Your task to perform on an android device: View the shopping cart on walmart. Add "logitech g903" to the cart on walmart Image 0: 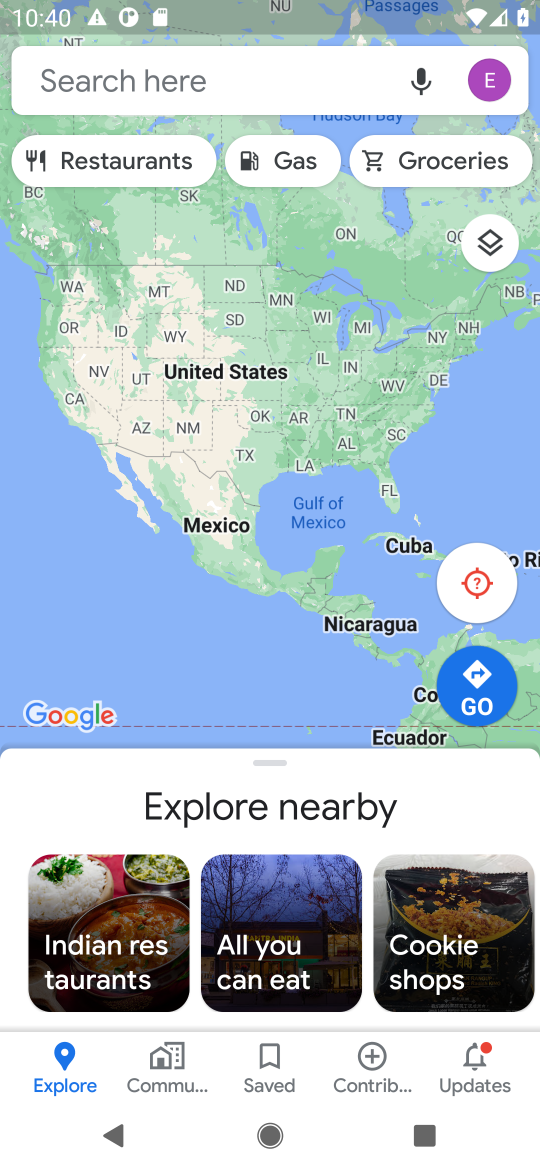
Step 0: press home button
Your task to perform on an android device: View the shopping cart on walmart. Add "logitech g903" to the cart on walmart Image 1: 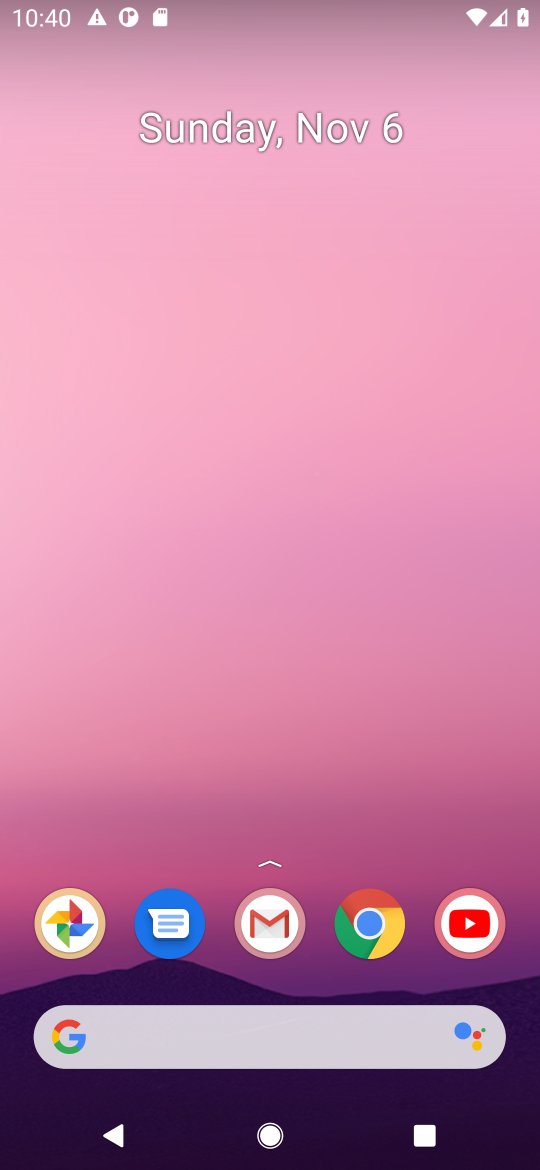
Step 1: click (371, 932)
Your task to perform on an android device: View the shopping cart on walmart. Add "logitech g903" to the cart on walmart Image 2: 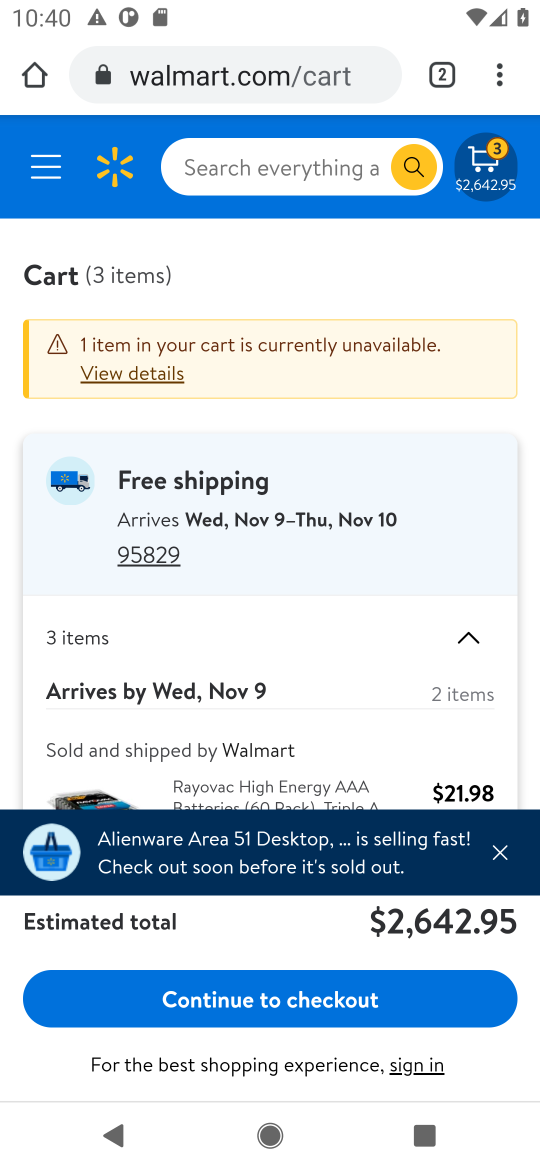
Step 2: click (503, 180)
Your task to perform on an android device: View the shopping cart on walmart. Add "logitech g903" to the cart on walmart Image 3: 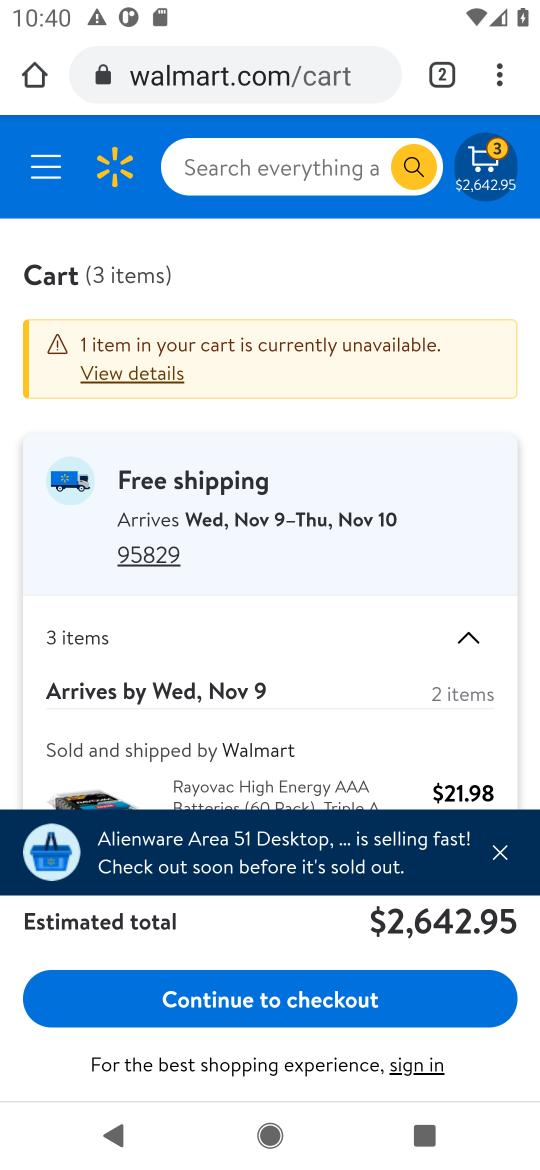
Step 3: click (322, 171)
Your task to perform on an android device: View the shopping cart on walmart. Add "logitech g903" to the cart on walmart Image 4: 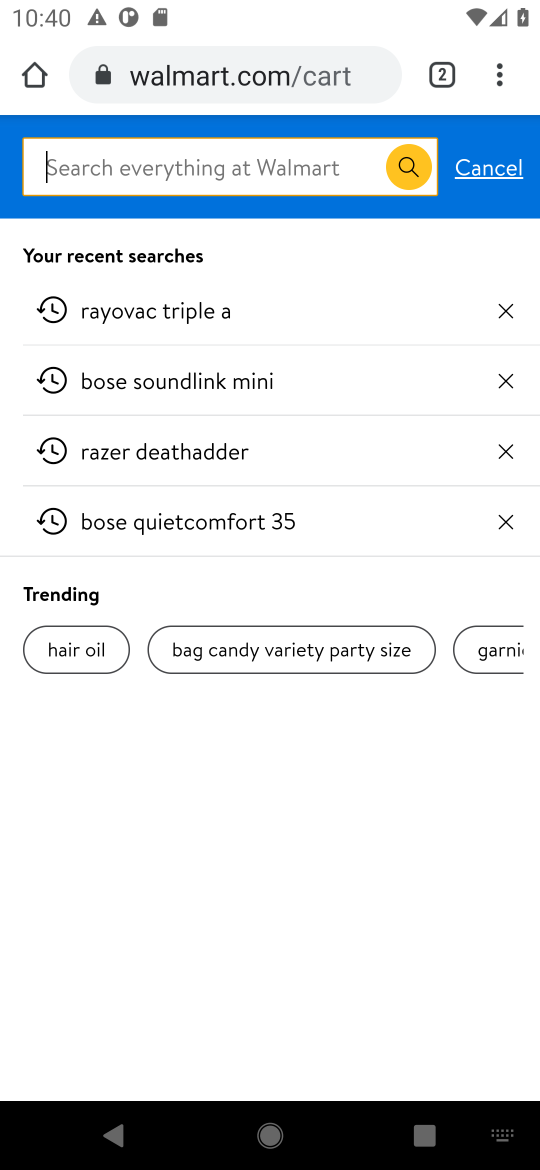
Step 4: type "logitech g903"
Your task to perform on an android device: View the shopping cart on walmart. Add "logitech g903" to the cart on walmart Image 5: 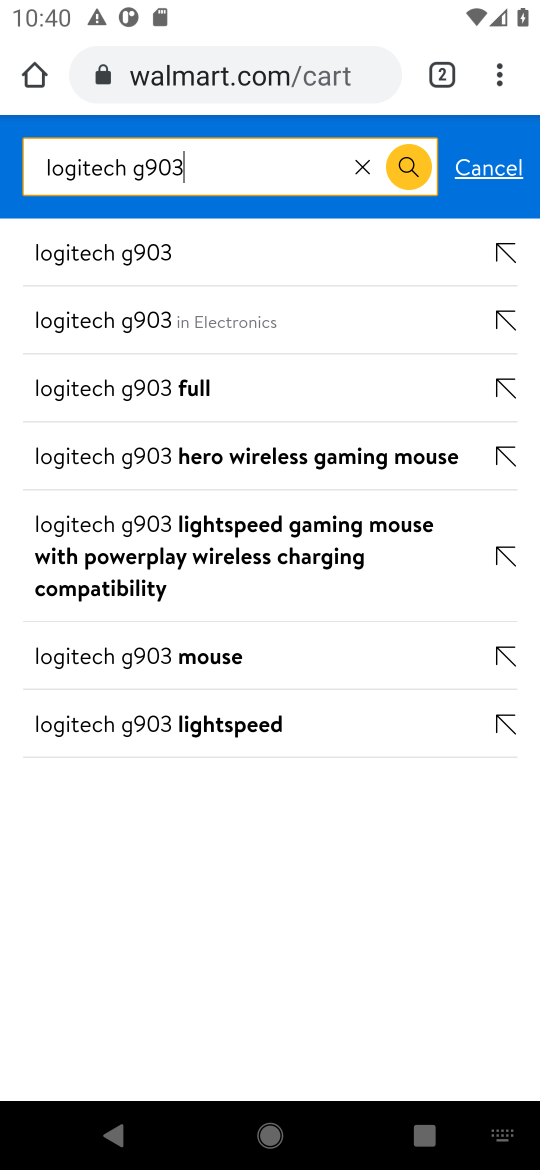
Step 5: click (102, 263)
Your task to perform on an android device: View the shopping cart on walmart. Add "logitech g903" to the cart on walmart Image 6: 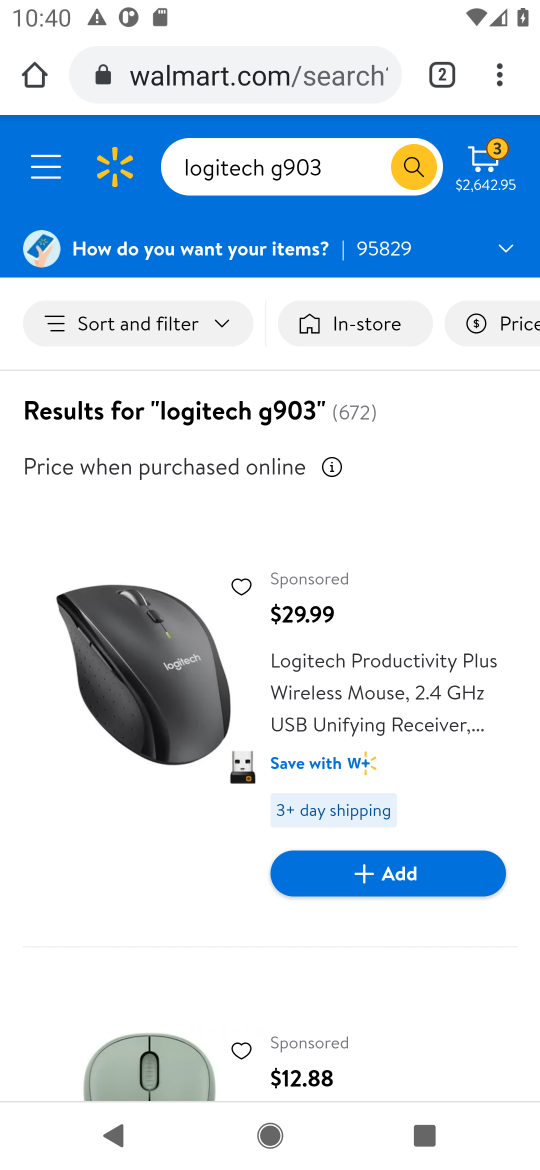
Step 6: drag from (188, 858) to (191, 520)
Your task to perform on an android device: View the shopping cart on walmart. Add "logitech g903" to the cart on walmart Image 7: 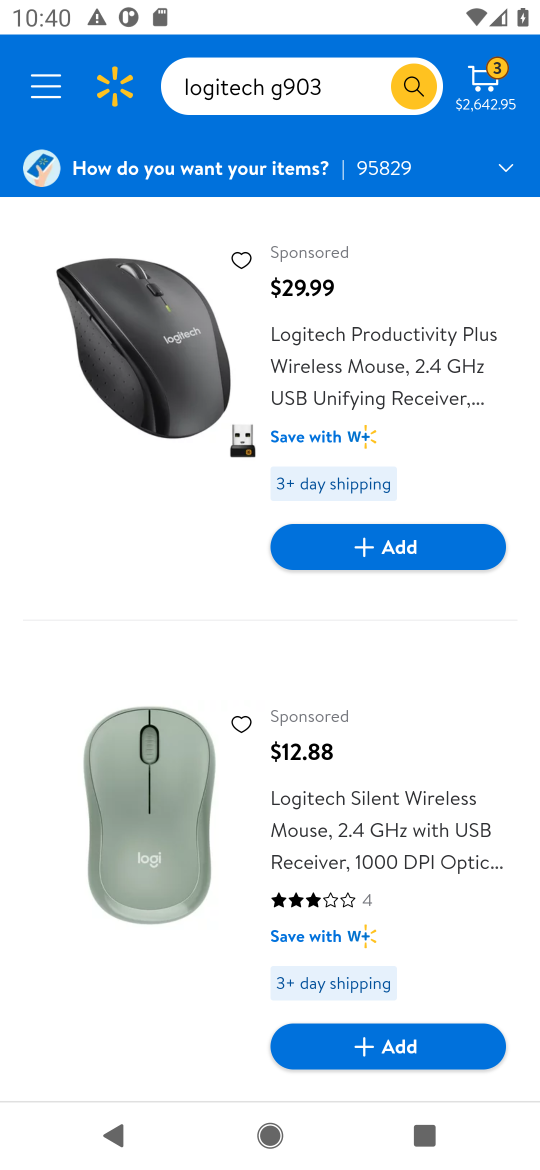
Step 7: drag from (167, 883) to (173, 316)
Your task to perform on an android device: View the shopping cart on walmart. Add "logitech g903" to the cart on walmart Image 8: 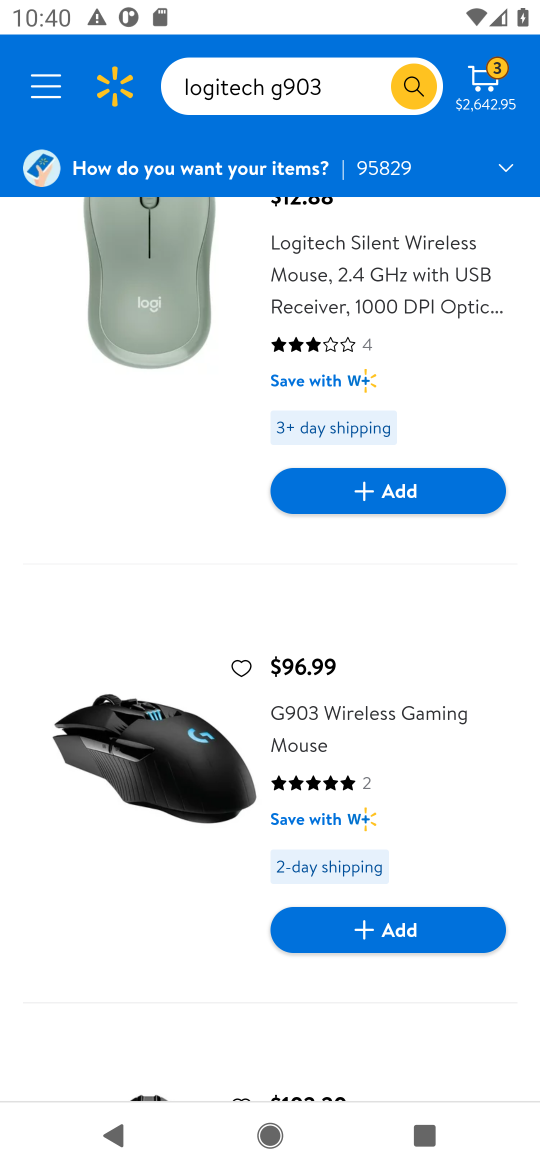
Step 8: click (186, 758)
Your task to perform on an android device: View the shopping cart on walmart. Add "logitech g903" to the cart on walmart Image 9: 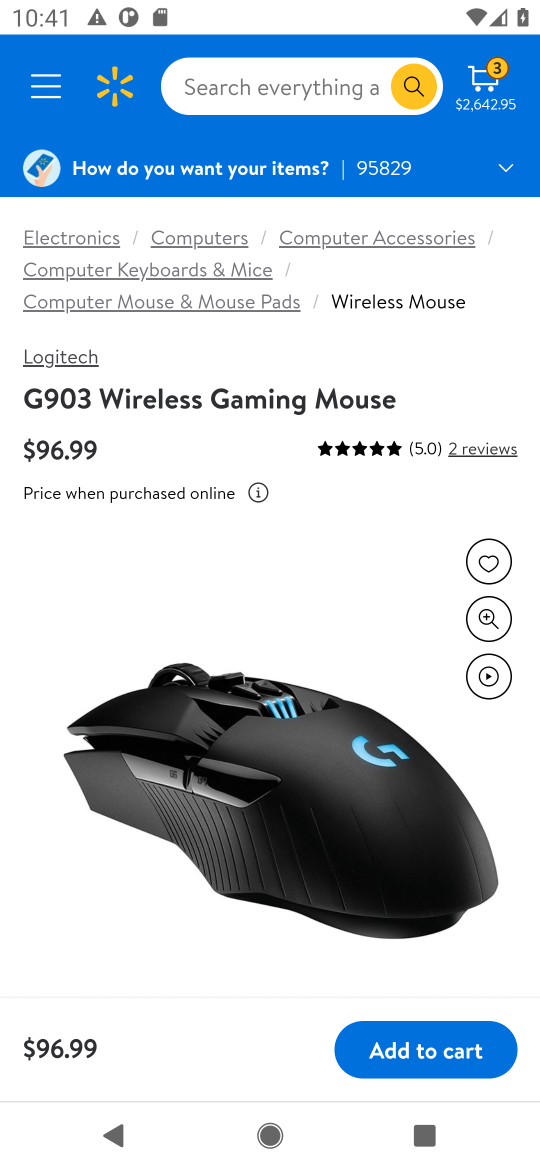
Step 9: click (398, 1059)
Your task to perform on an android device: View the shopping cart on walmart. Add "logitech g903" to the cart on walmart Image 10: 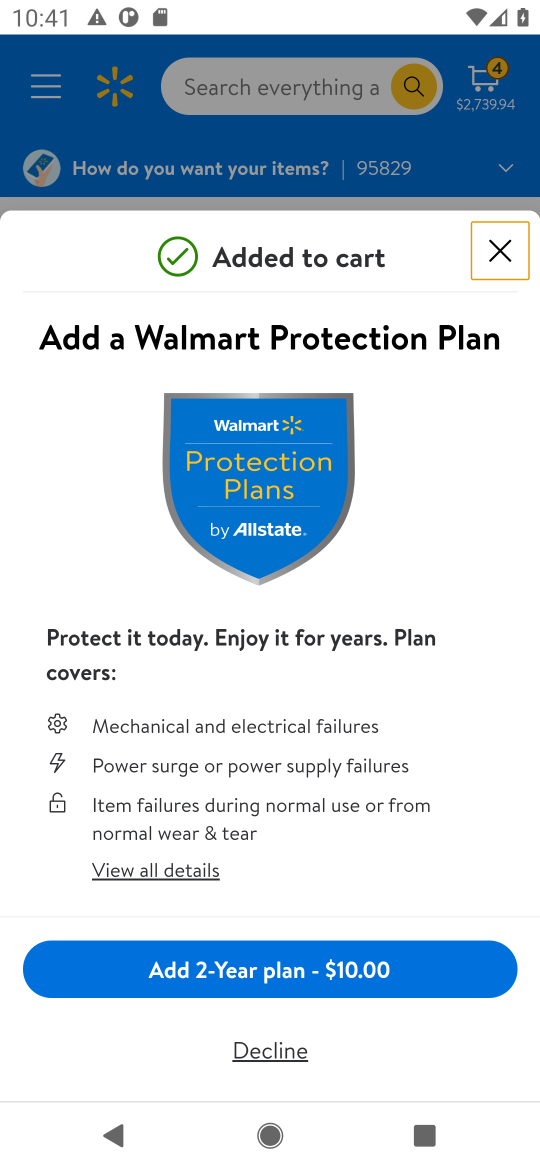
Step 10: click (505, 259)
Your task to perform on an android device: View the shopping cart on walmart. Add "logitech g903" to the cart on walmart Image 11: 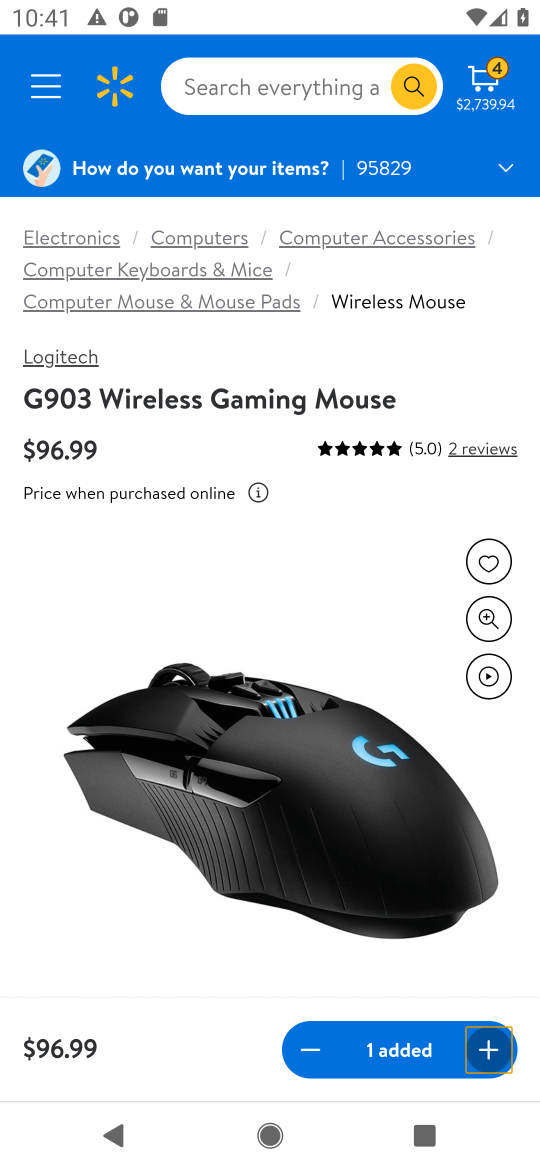
Step 11: task complete